Your task to perform on an android device: open app "Google Drive" Image 0: 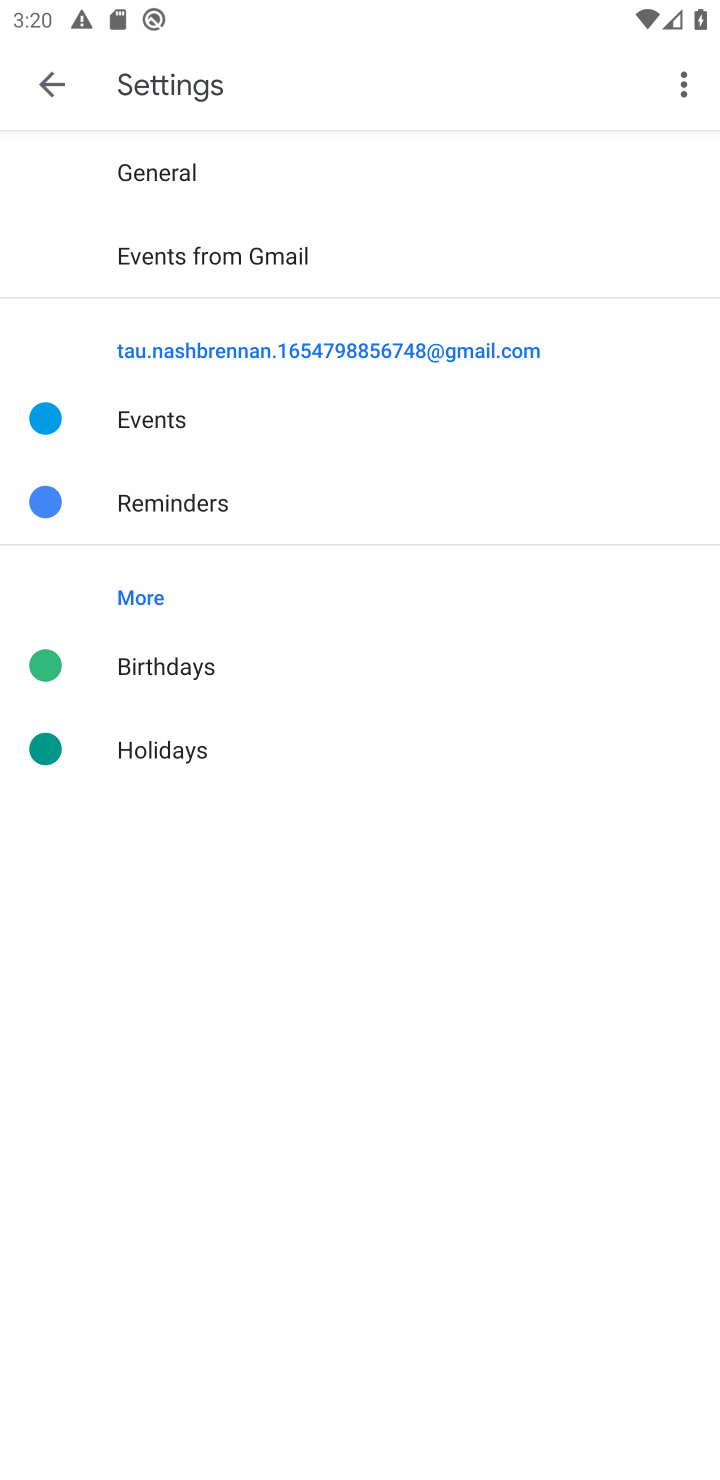
Step 0: press home button
Your task to perform on an android device: open app "Google Drive" Image 1: 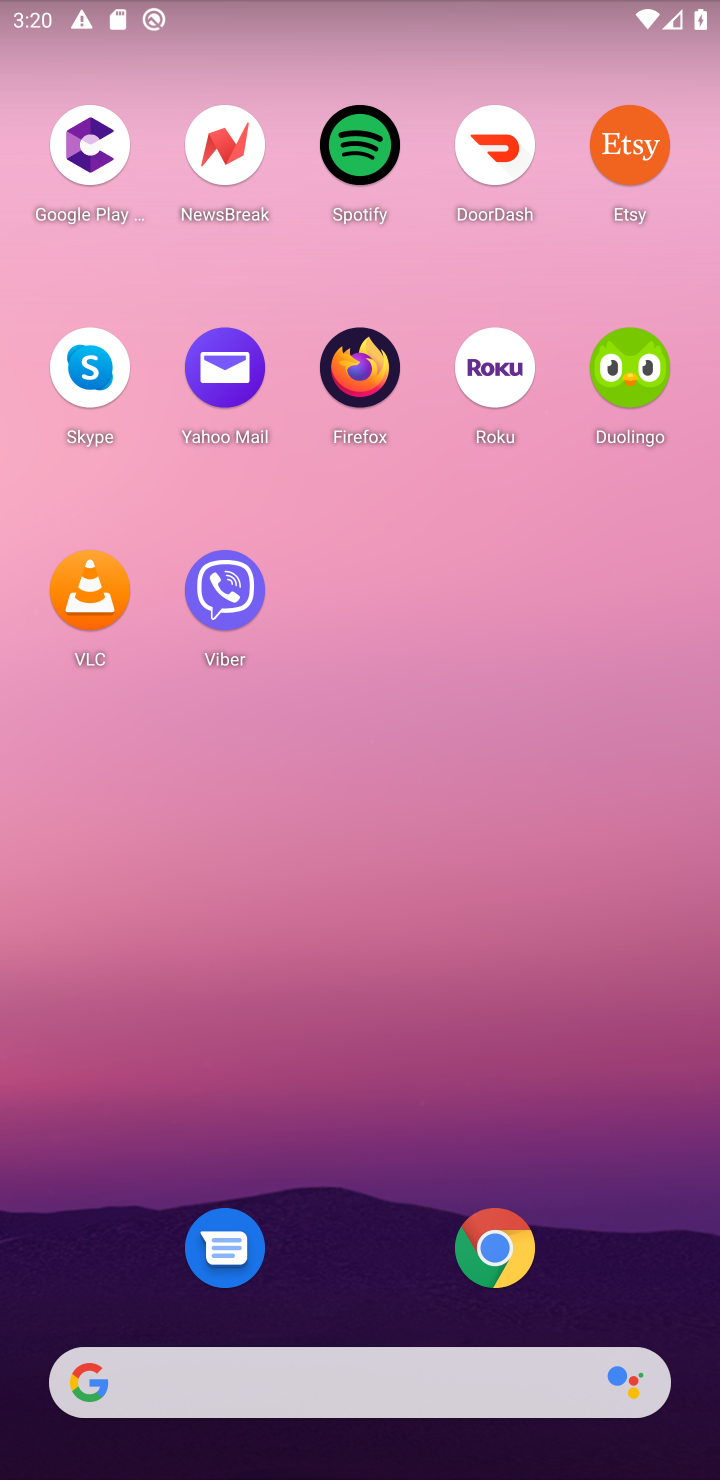
Step 1: drag from (361, 1133) to (364, 87)
Your task to perform on an android device: open app "Google Drive" Image 2: 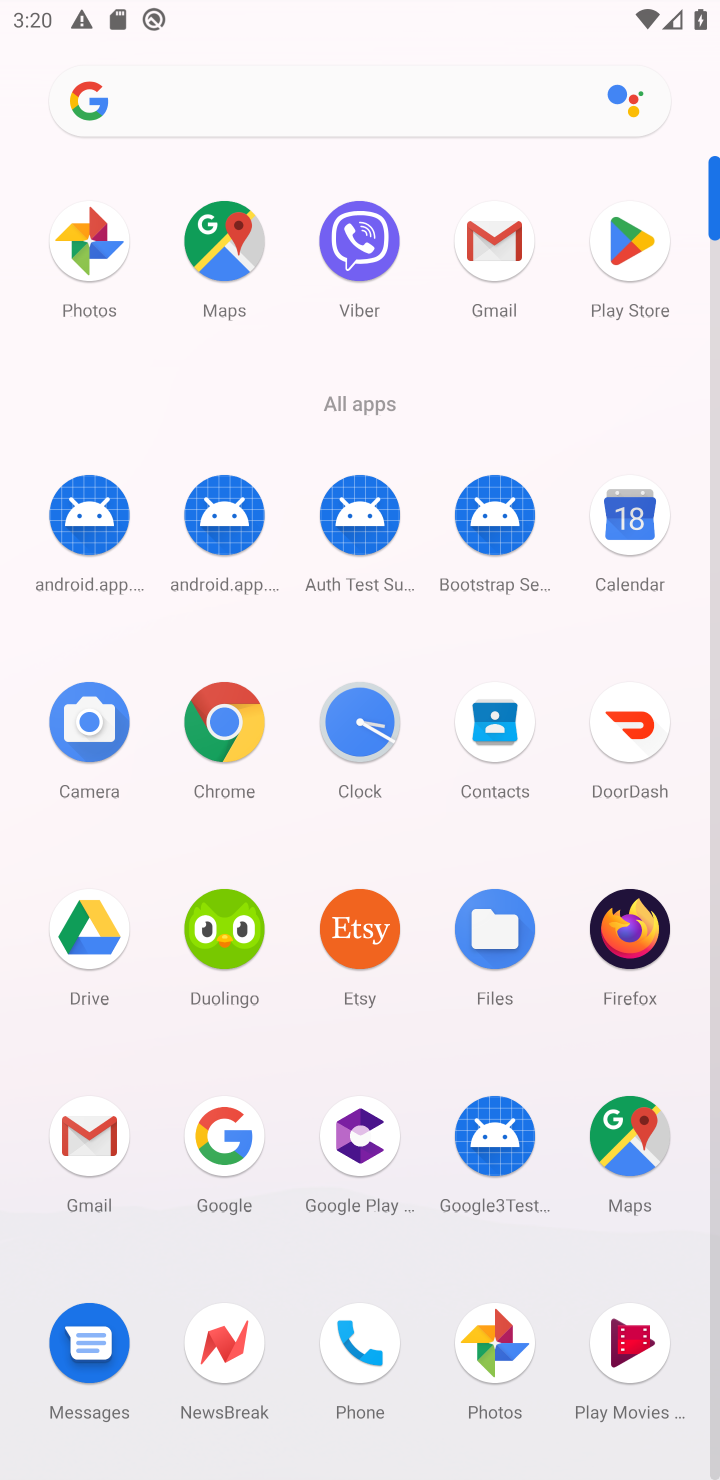
Step 2: click (621, 242)
Your task to perform on an android device: open app "Google Drive" Image 3: 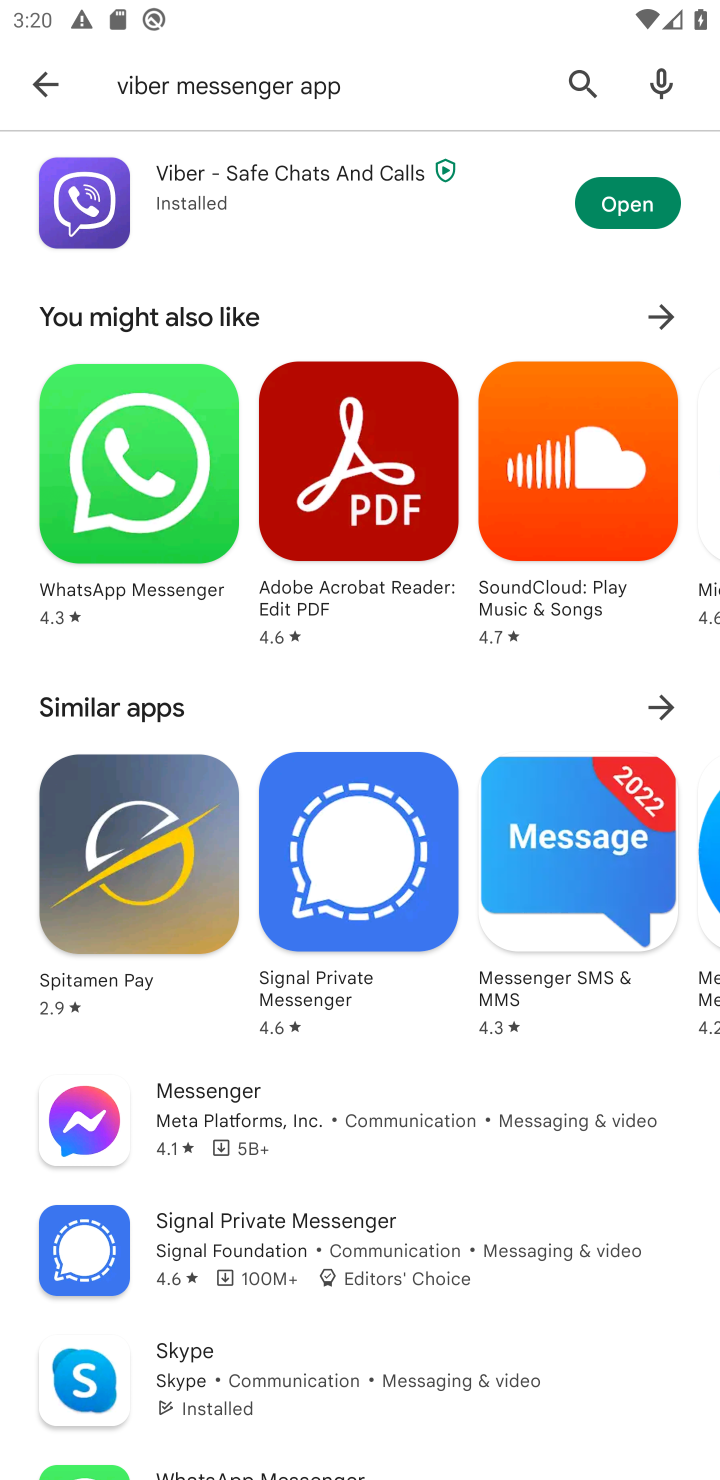
Step 3: click (577, 69)
Your task to perform on an android device: open app "Google Drive" Image 4: 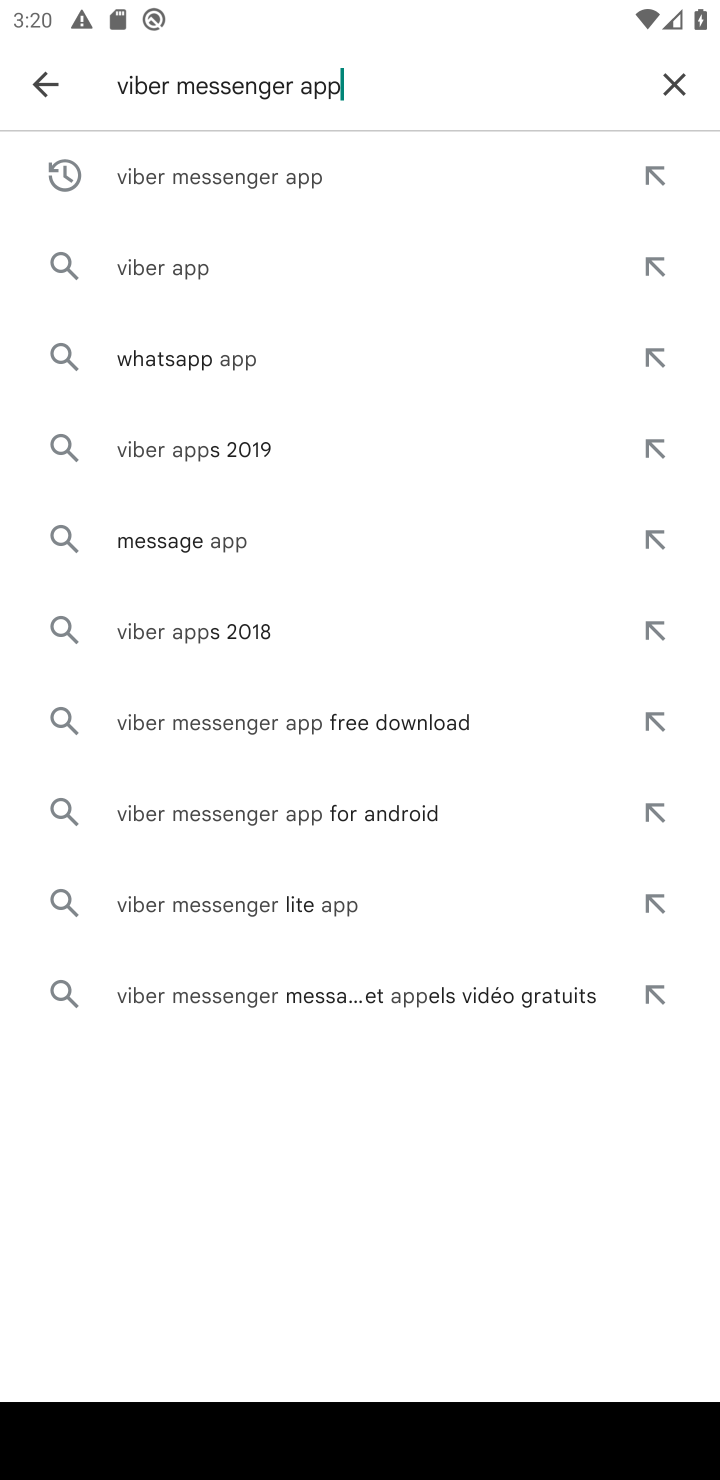
Step 4: click (672, 70)
Your task to perform on an android device: open app "Google Drive" Image 5: 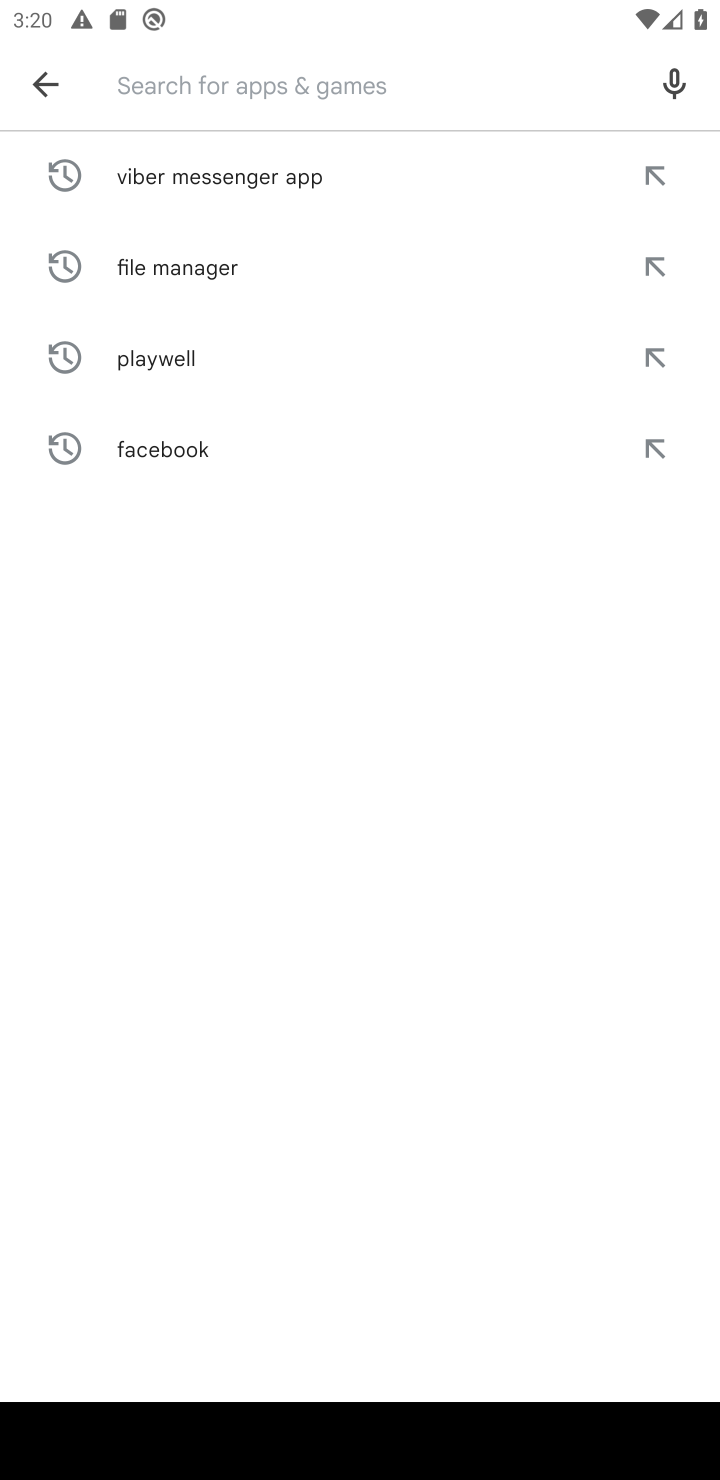
Step 5: type "Google Drive"
Your task to perform on an android device: open app "Google Drive" Image 6: 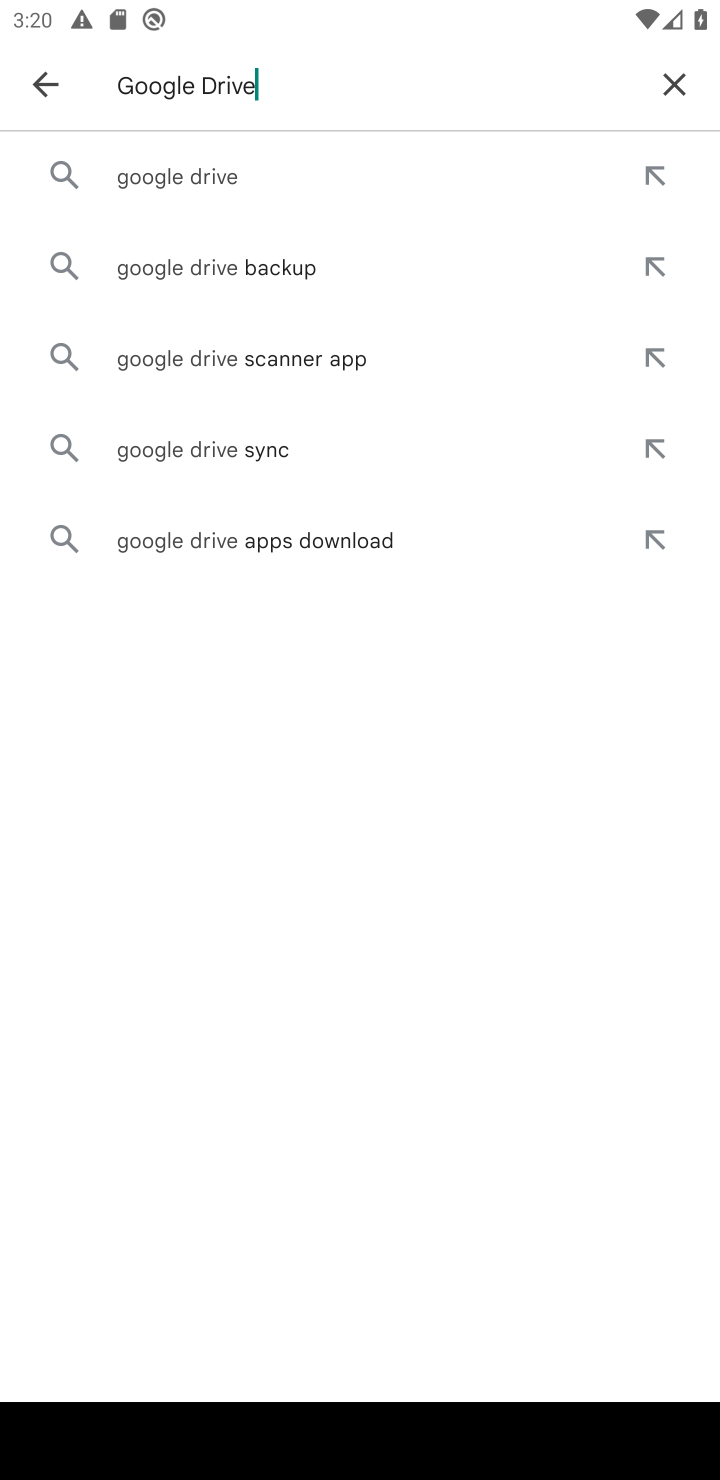
Step 6: click (217, 164)
Your task to perform on an android device: open app "Google Drive" Image 7: 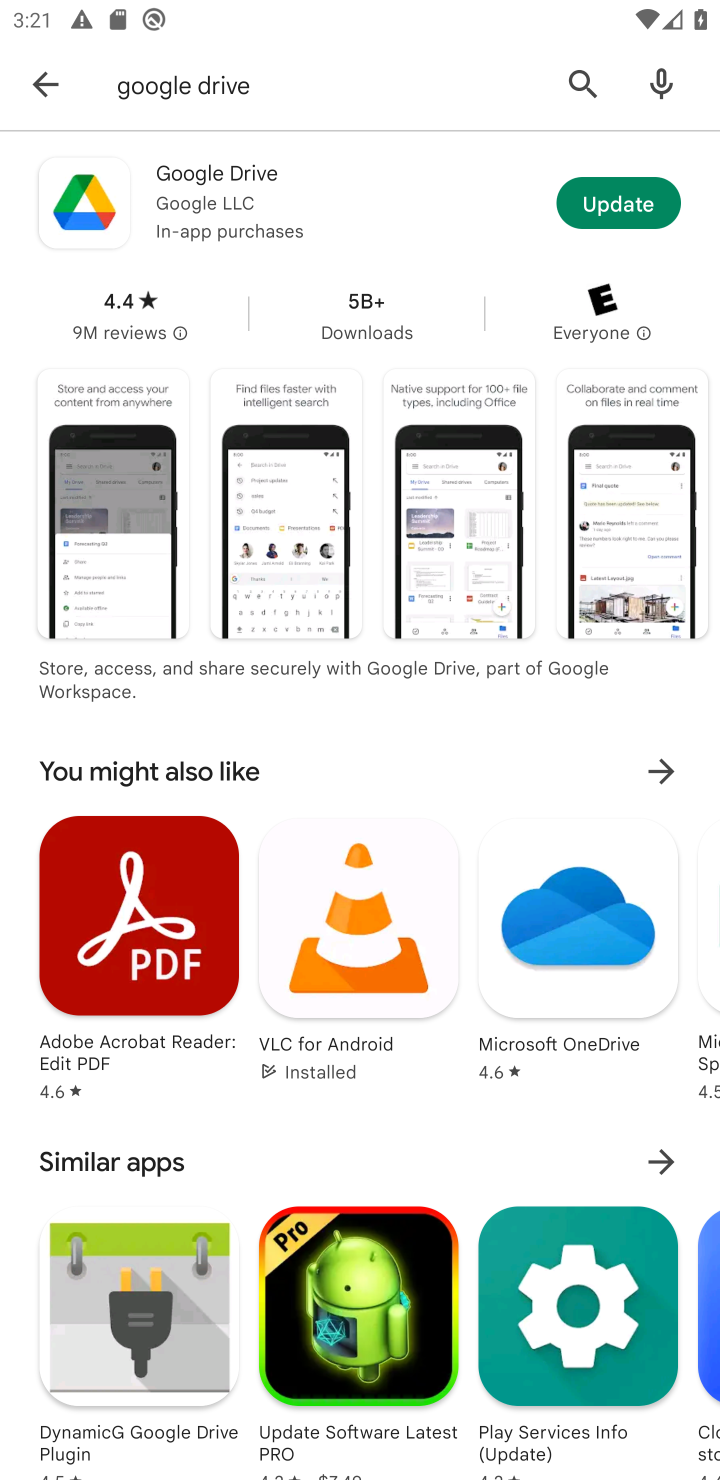
Step 7: task complete